Your task to perform on an android device: Search for "alienware area 51" on bestbuy, select the first entry, and add it to the cart. Image 0: 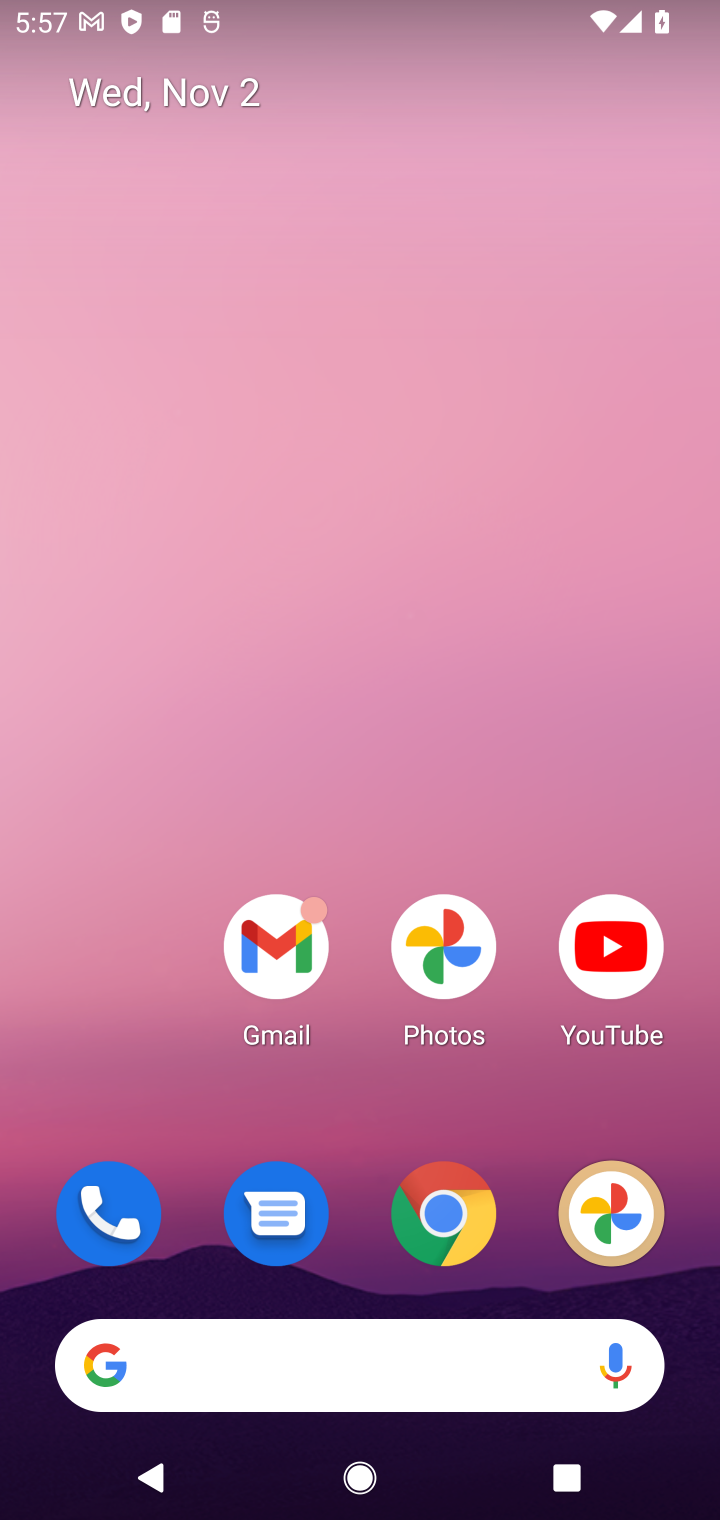
Step 0: click (447, 1204)
Your task to perform on an android device: Search for "alienware area 51" on bestbuy, select the first entry, and add it to the cart. Image 1: 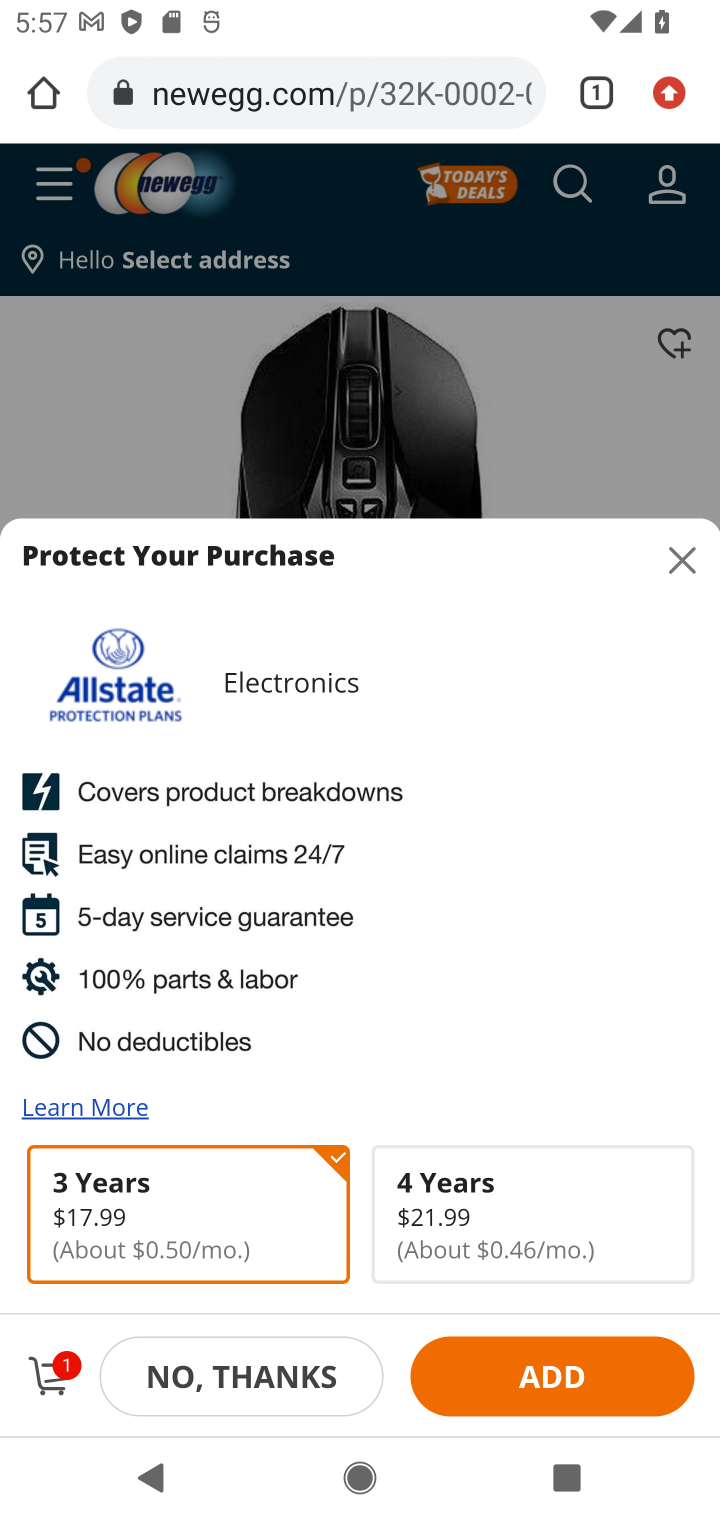
Step 1: click (359, 58)
Your task to perform on an android device: Search for "alienware area 51" on bestbuy, select the first entry, and add it to the cart. Image 2: 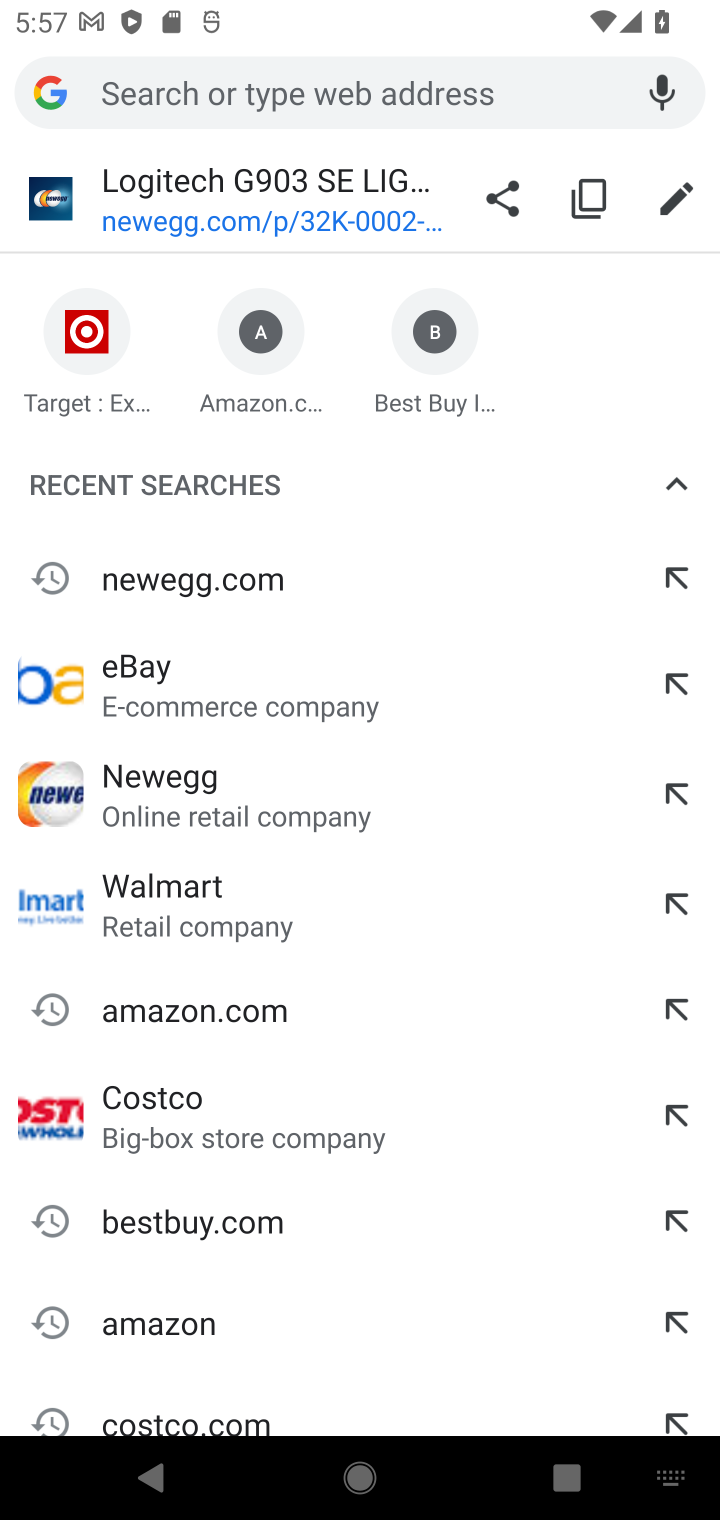
Step 2: type "bestbuy"
Your task to perform on an android device: Search for "alienware area 51" on bestbuy, select the first entry, and add it to the cart. Image 3: 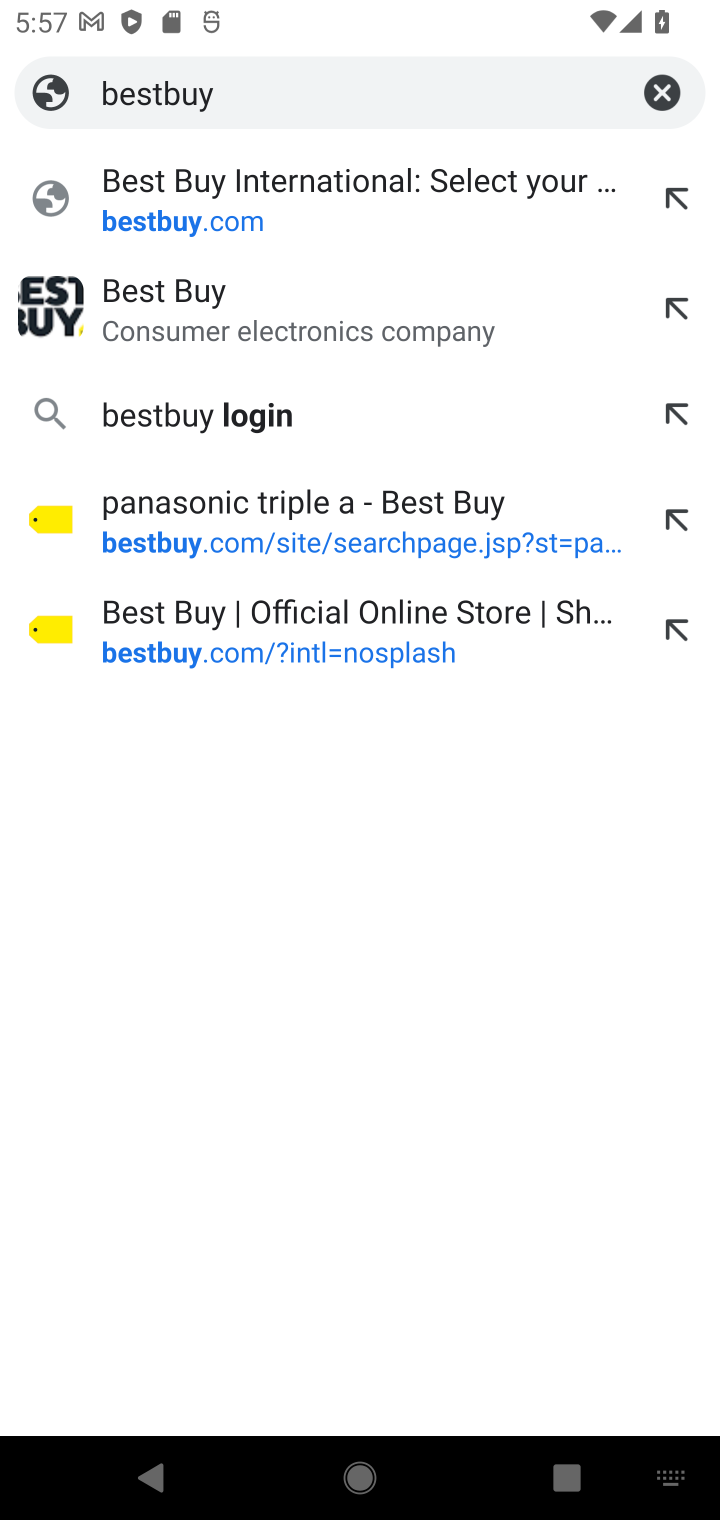
Step 3: click (167, 184)
Your task to perform on an android device: Search for "alienware area 51" on bestbuy, select the first entry, and add it to the cart. Image 4: 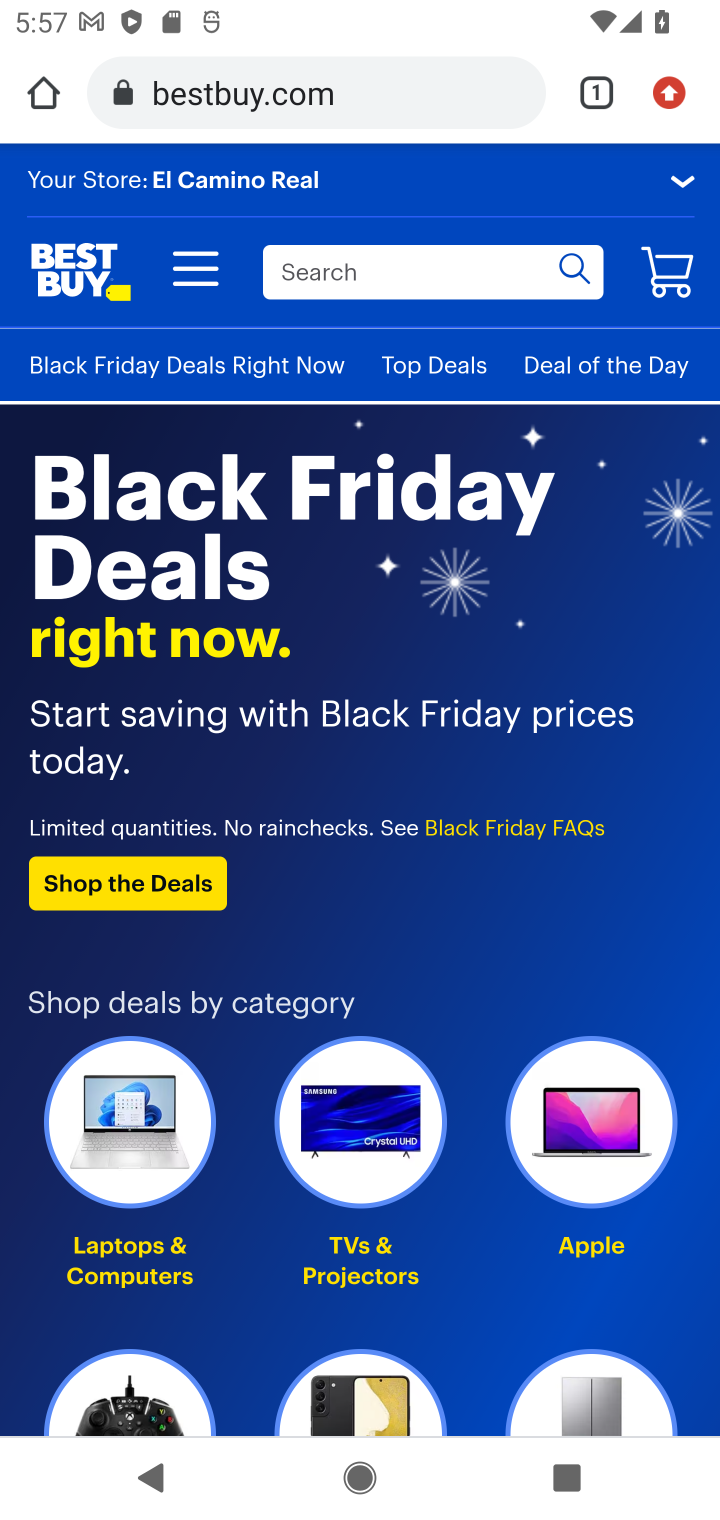
Step 4: click (317, 270)
Your task to perform on an android device: Search for "alienware area 51" on bestbuy, select the first entry, and add it to the cart. Image 5: 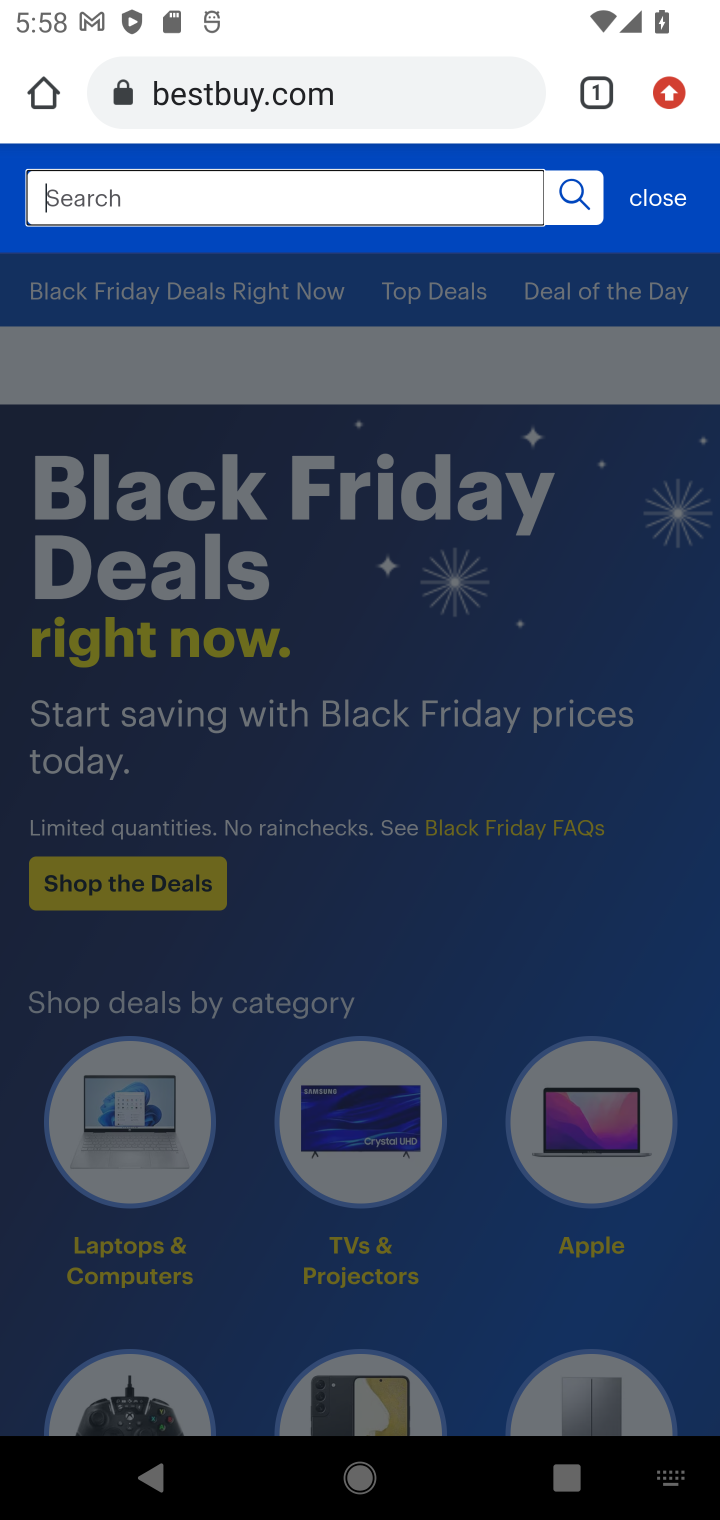
Step 5: type "alienware area 51"
Your task to perform on an android device: Search for "alienware area 51" on bestbuy, select the first entry, and add it to the cart. Image 6: 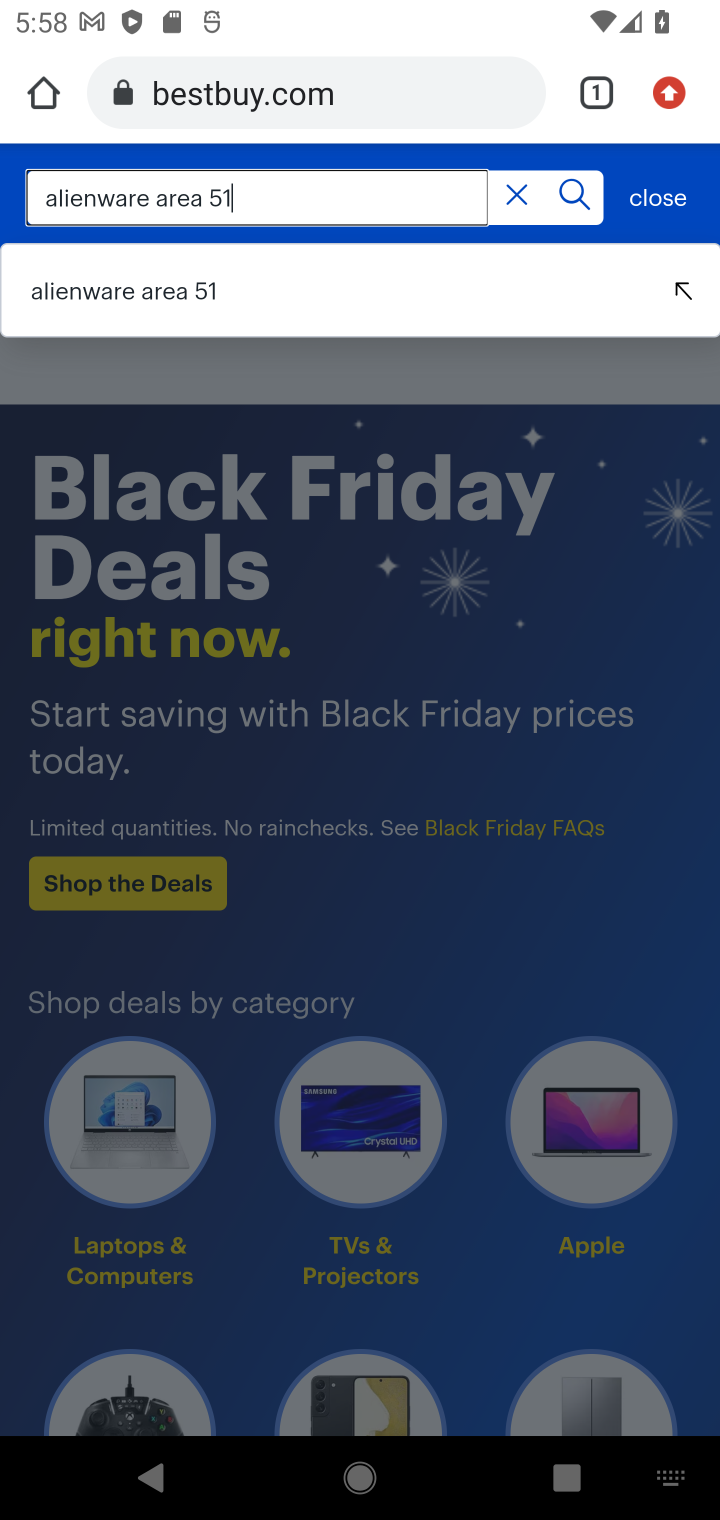
Step 6: click (76, 295)
Your task to perform on an android device: Search for "alienware area 51" on bestbuy, select the first entry, and add it to the cart. Image 7: 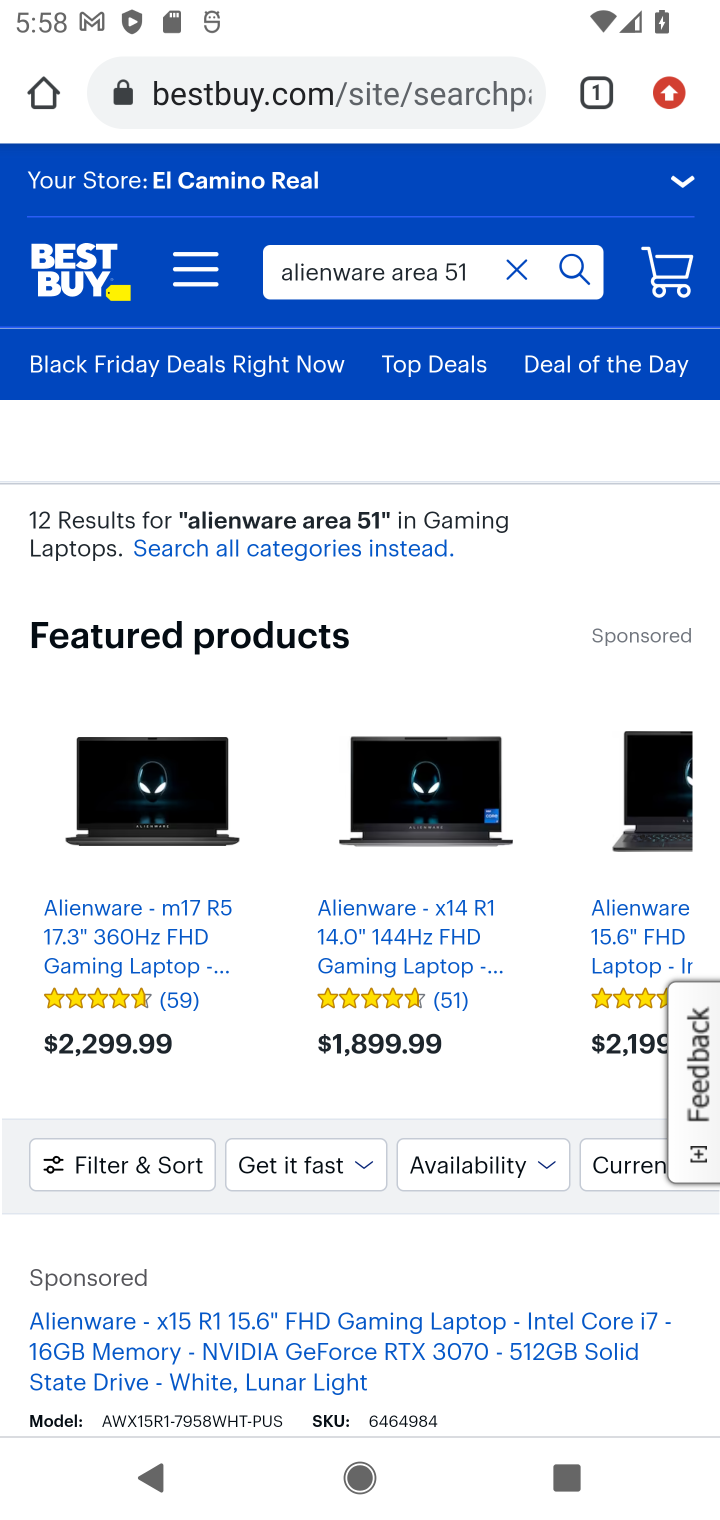
Step 7: drag from (348, 1259) to (335, 597)
Your task to perform on an android device: Search for "alienware area 51" on bestbuy, select the first entry, and add it to the cart. Image 8: 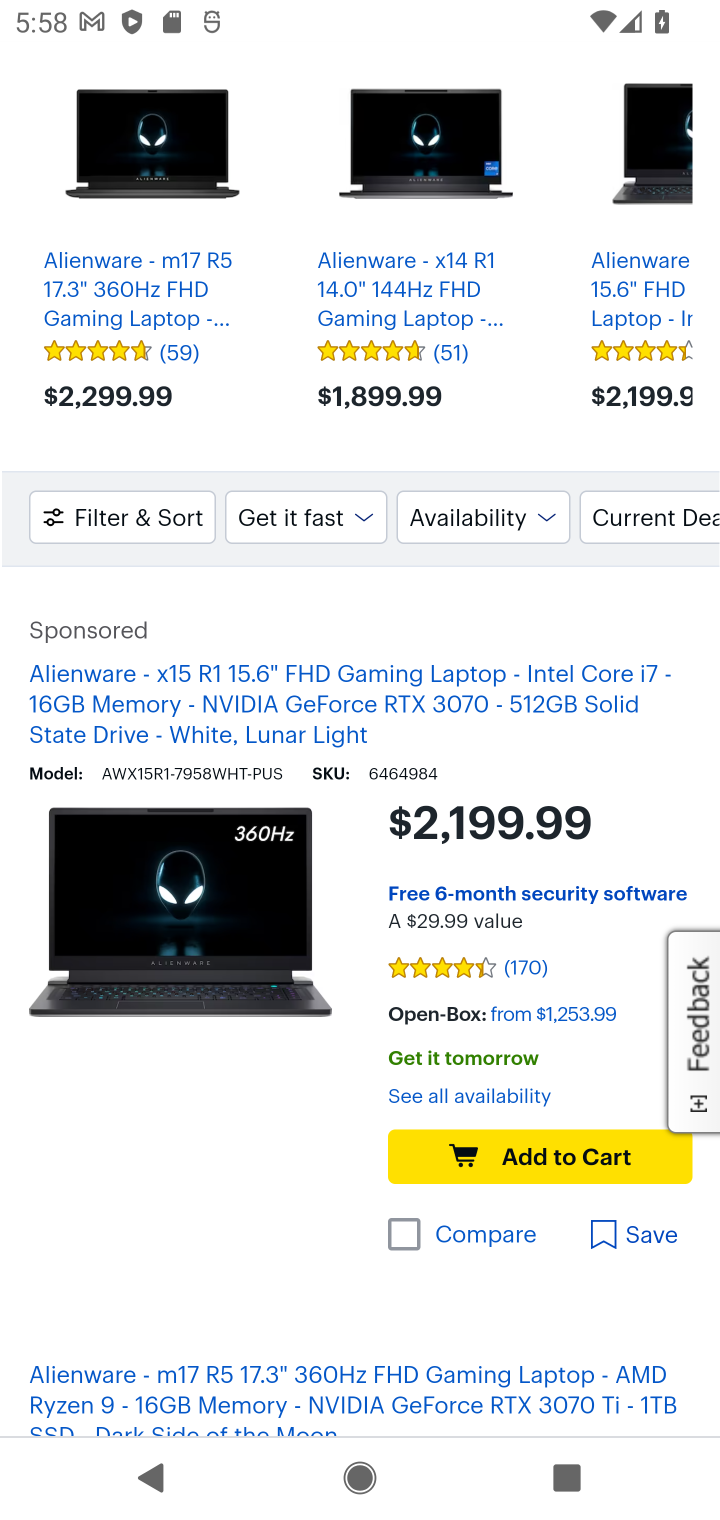
Step 8: click (515, 1159)
Your task to perform on an android device: Search for "alienware area 51" on bestbuy, select the first entry, and add it to the cart. Image 9: 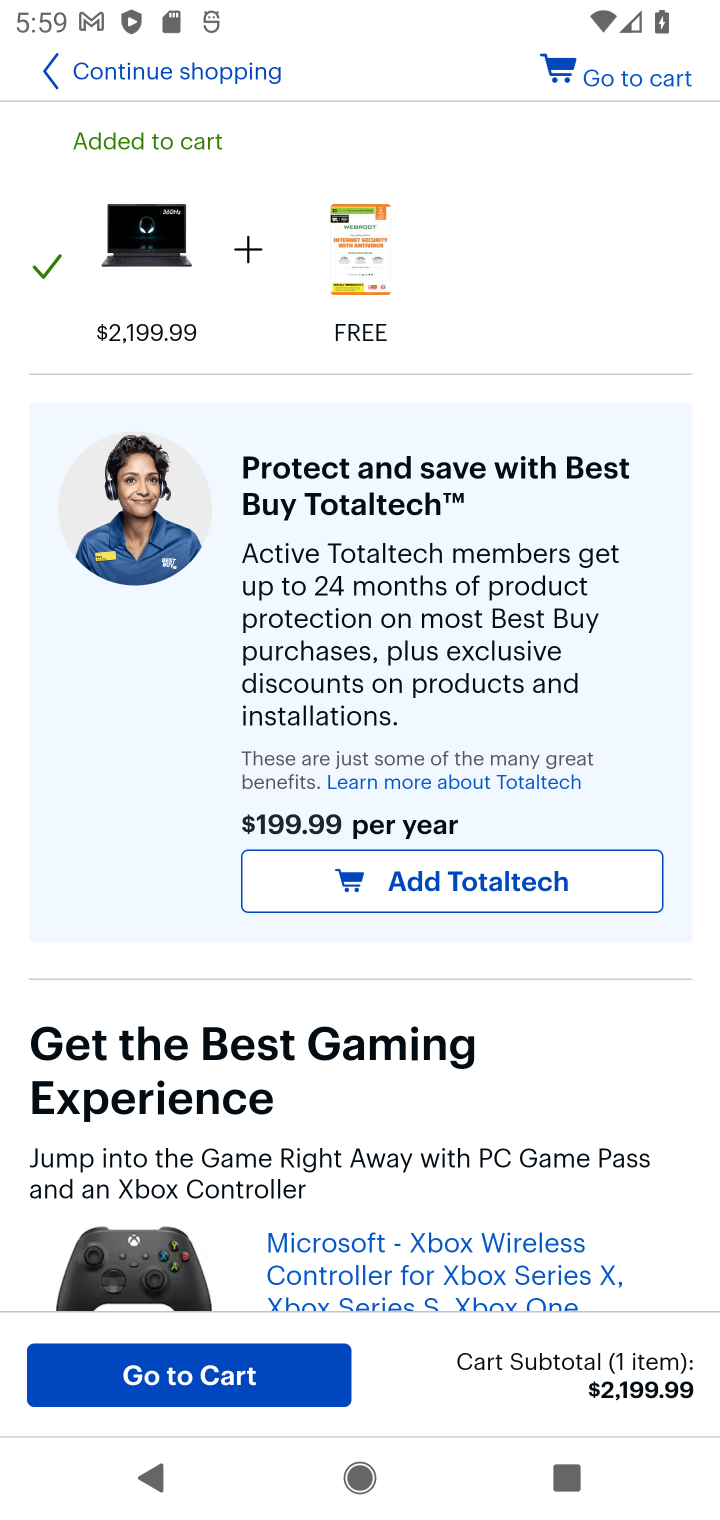
Step 9: task complete